Your task to perform on an android device: Go to Reddit.com Image 0: 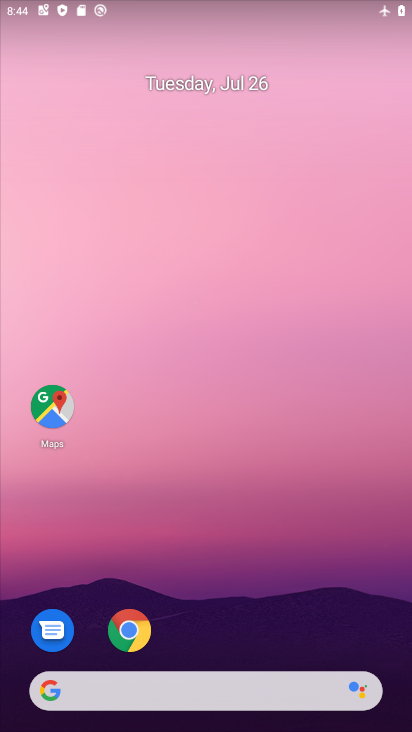
Step 0: drag from (250, 669) to (200, 191)
Your task to perform on an android device: Go to Reddit.com Image 1: 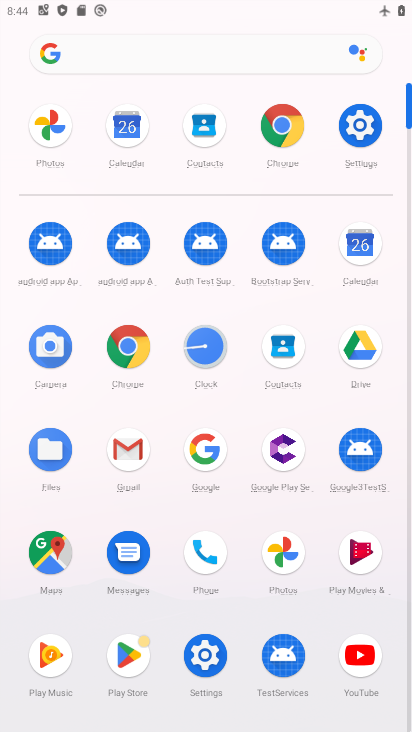
Step 1: click (211, 63)
Your task to perform on an android device: Go to Reddit.com Image 2: 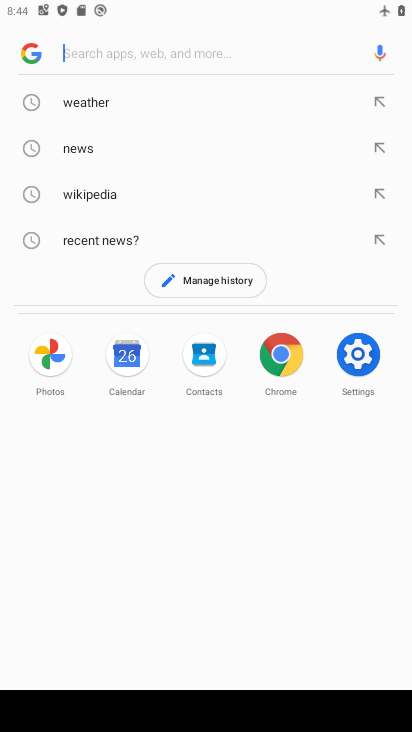
Step 2: type "reddit.com"
Your task to perform on an android device: Go to Reddit.com Image 3: 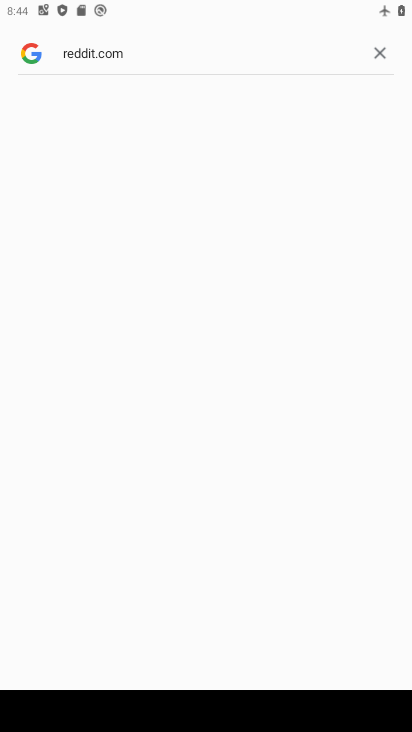
Step 3: task complete